Your task to perform on an android device: open sync settings in chrome Image 0: 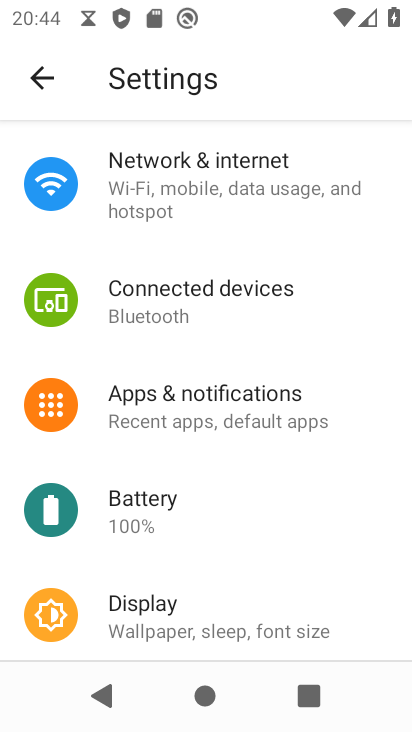
Step 0: press home button
Your task to perform on an android device: open sync settings in chrome Image 1: 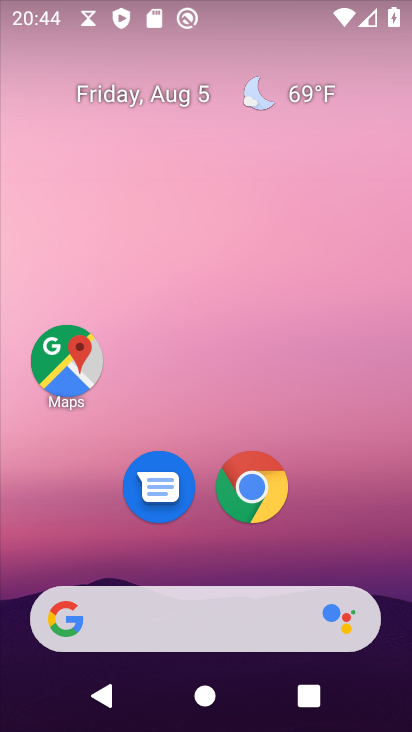
Step 1: click (247, 501)
Your task to perform on an android device: open sync settings in chrome Image 2: 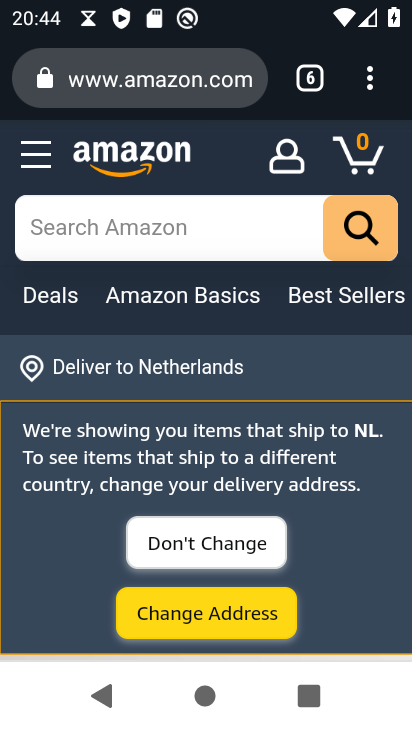
Step 2: drag from (371, 82) to (207, 565)
Your task to perform on an android device: open sync settings in chrome Image 3: 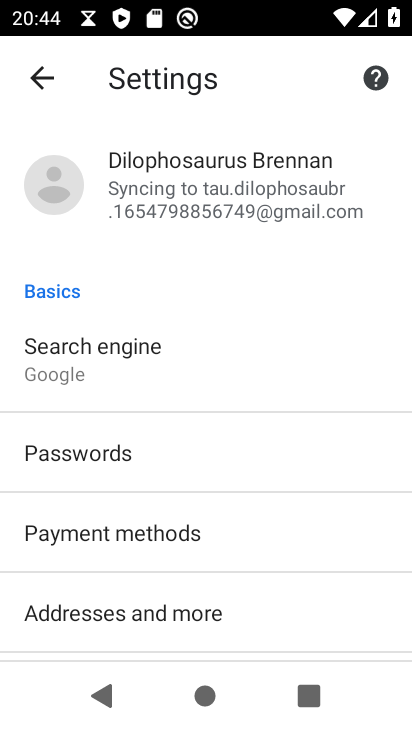
Step 3: click (192, 231)
Your task to perform on an android device: open sync settings in chrome Image 4: 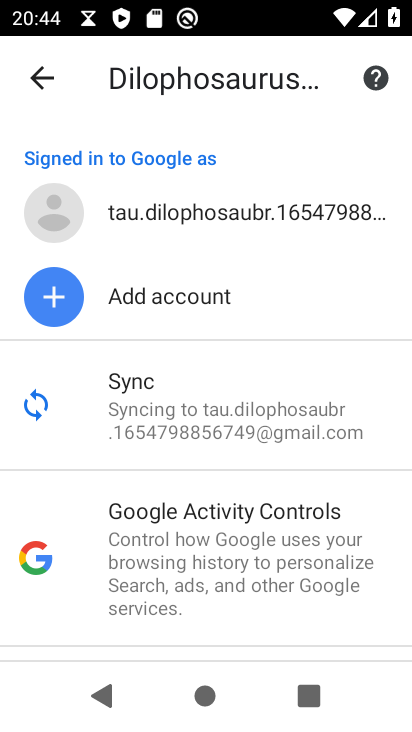
Step 4: click (209, 391)
Your task to perform on an android device: open sync settings in chrome Image 5: 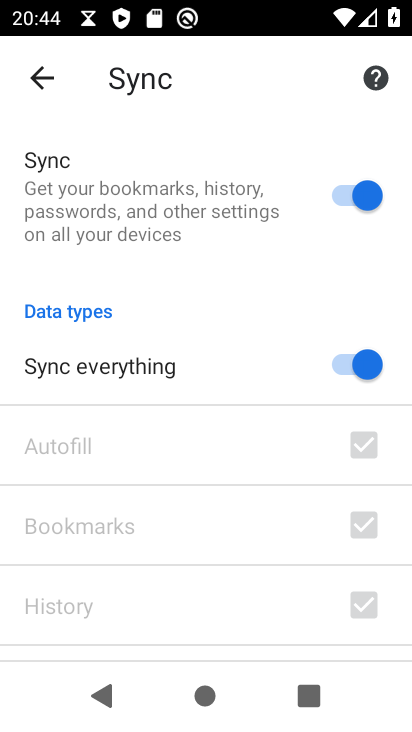
Step 5: task complete